Your task to perform on an android device: install app "Contacts" Image 0: 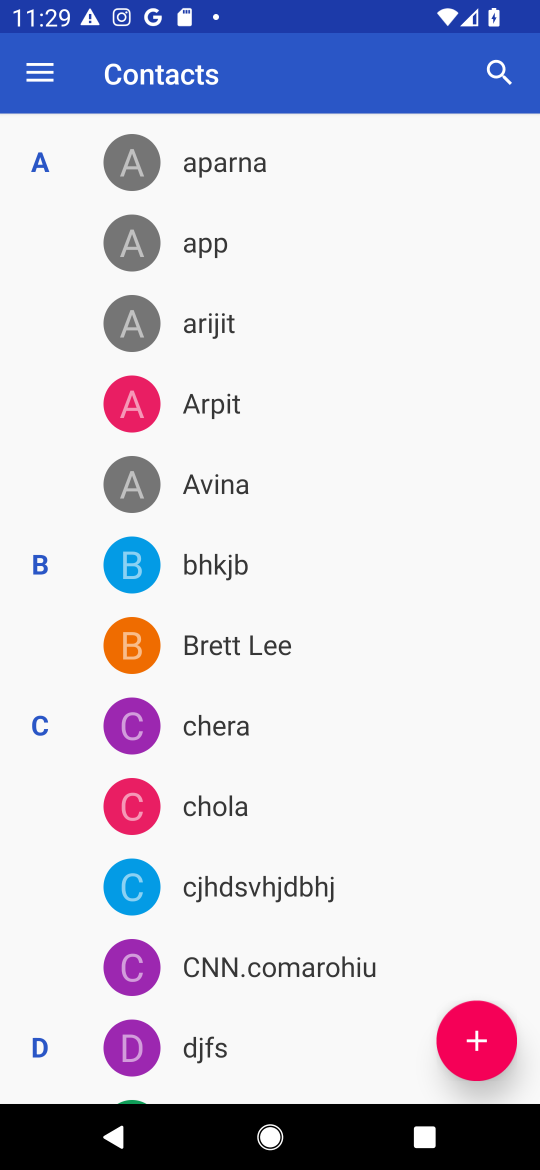
Step 0: press home button
Your task to perform on an android device: install app "Contacts" Image 1: 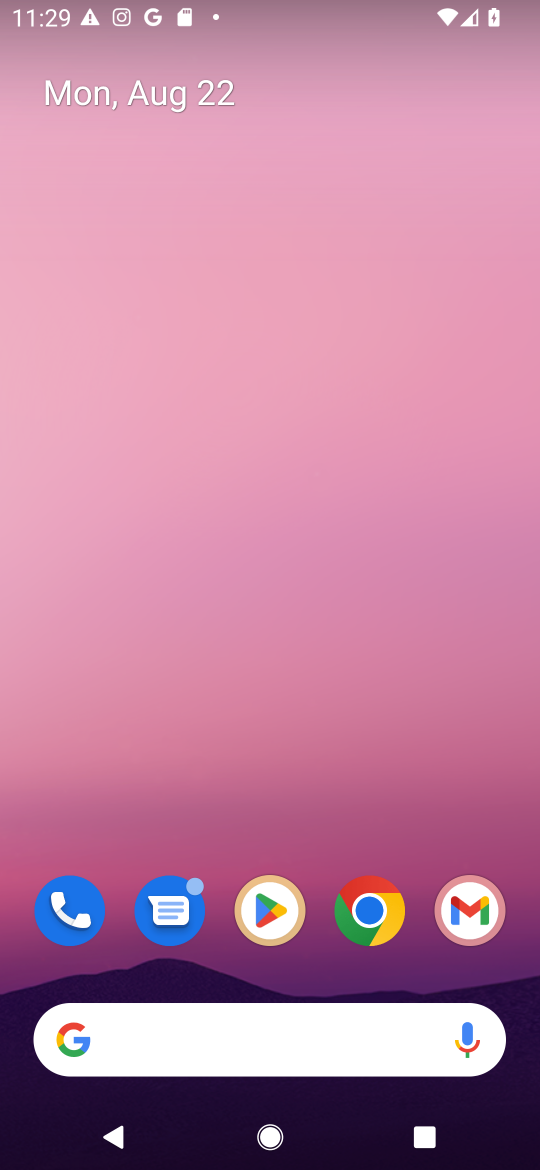
Step 1: click (276, 908)
Your task to perform on an android device: install app "Contacts" Image 2: 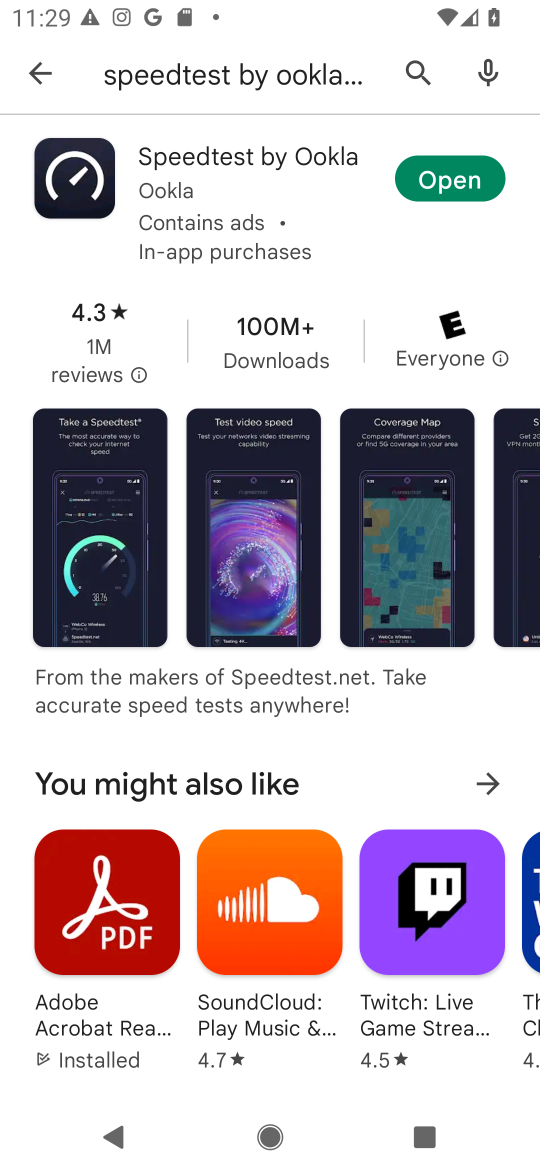
Step 2: click (422, 79)
Your task to perform on an android device: install app "Contacts" Image 3: 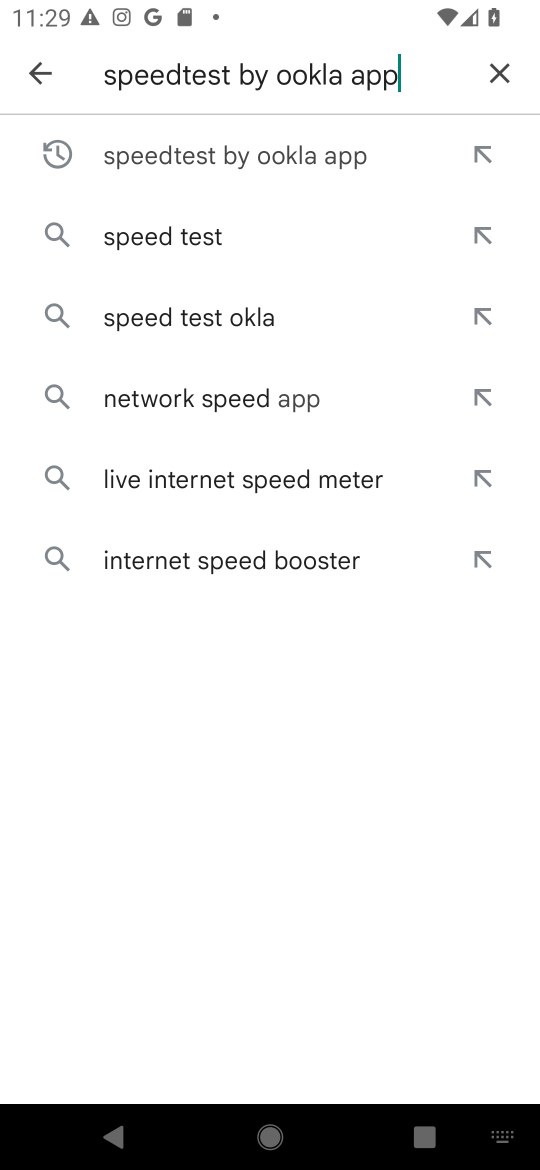
Step 3: click (487, 73)
Your task to perform on an android device: install app "Contacts" Image 4: 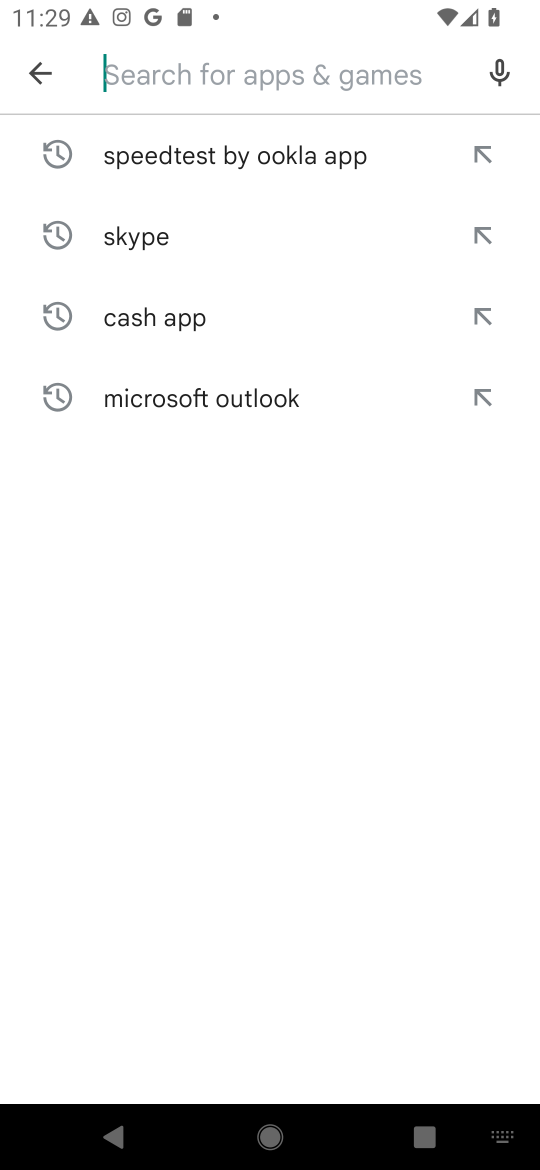
Step 4: type "Contacts"
Your task to perform on an android device: install app "Contacts" Image 5: 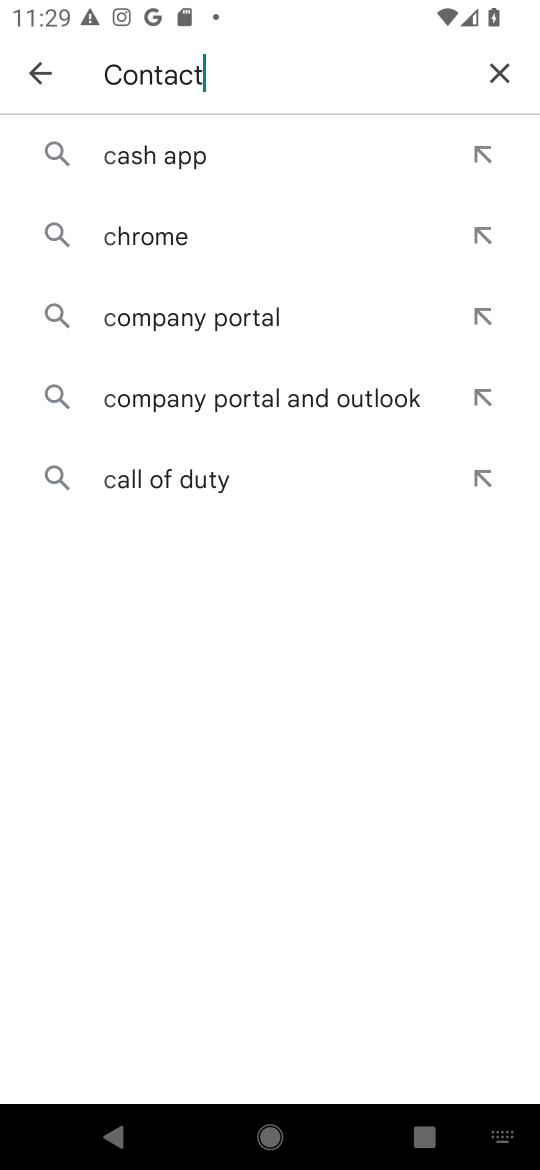
Step 5: type ""
Your task to perform on an android device: install app "Contacts" Image 6: 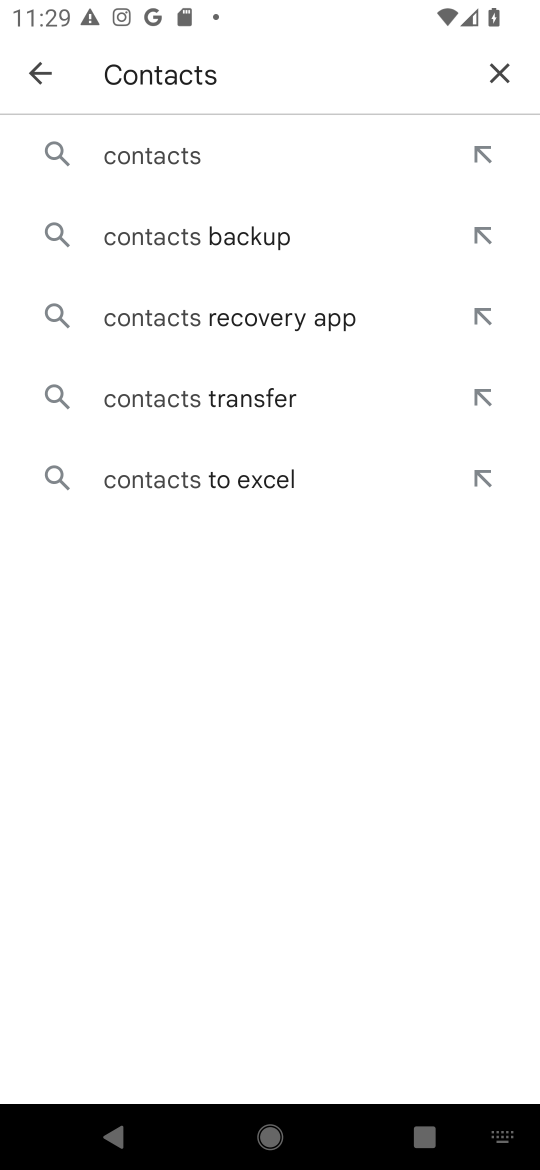
Step 6: click (192, 157)
Your task to perform on an android device: install app "Contacts" Image 7: 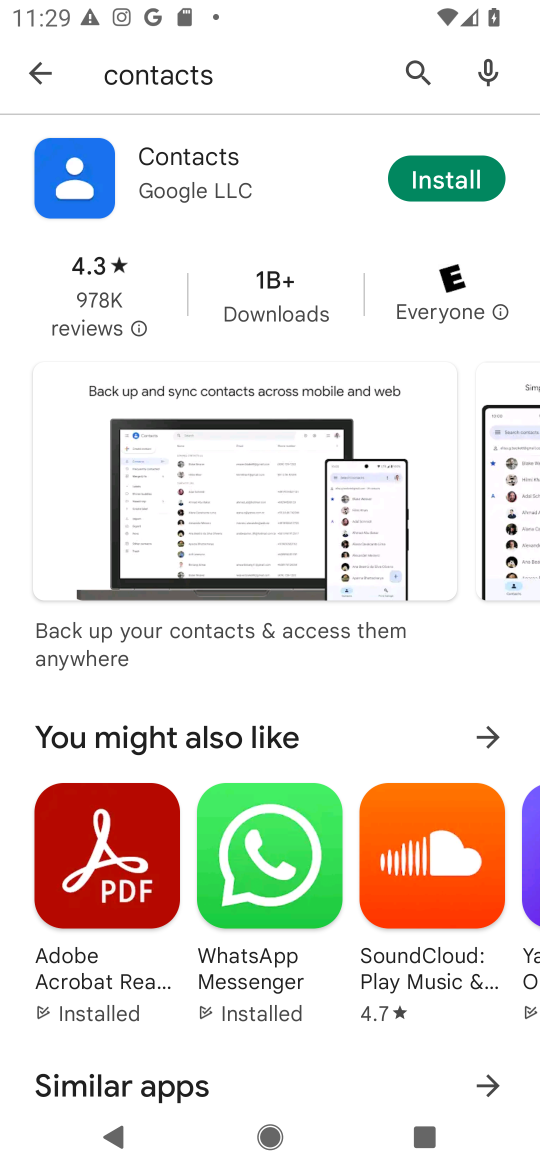
Step 7: click (417, 182)
Your task to perform on an android device: install app "Contacts" Image 8: 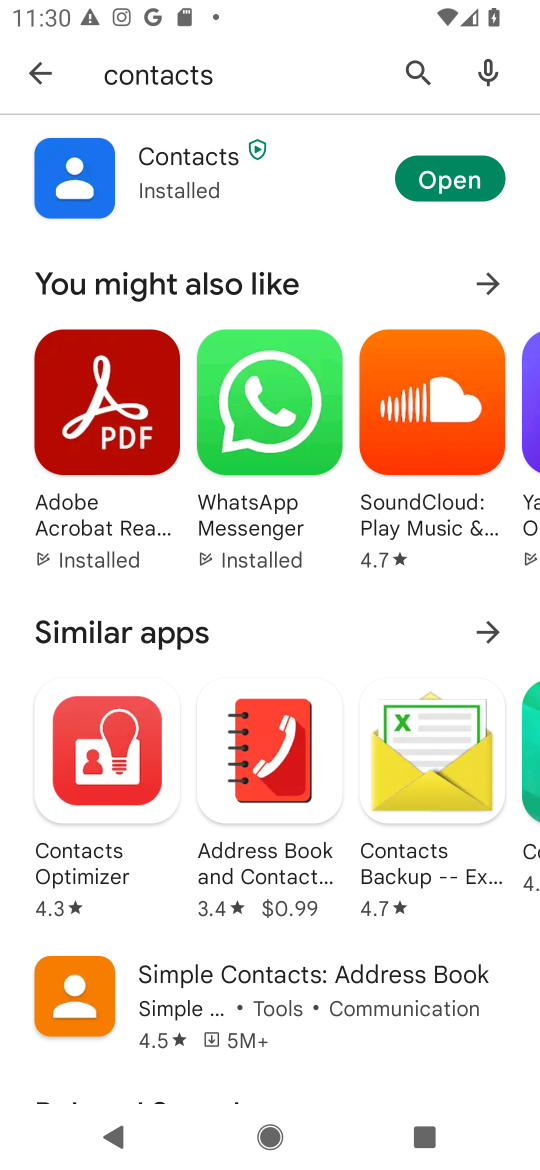
Step 8: task complete